Your task to perform on an android device: empty trash in the gmail app Image 0: 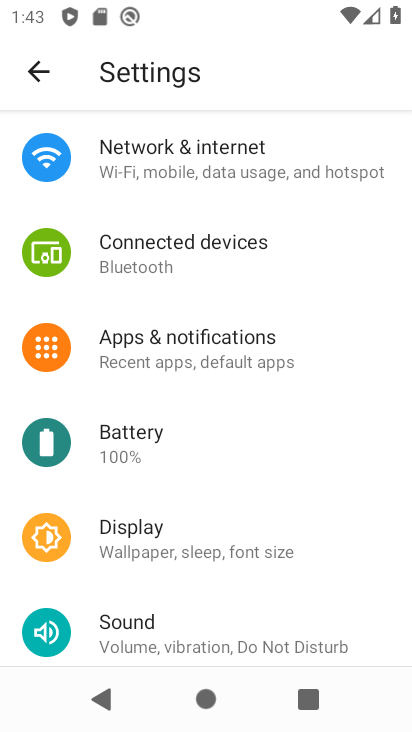
Step 0: press back button
Your task to perform on an android device: empty trash in the gmail app Image 1: 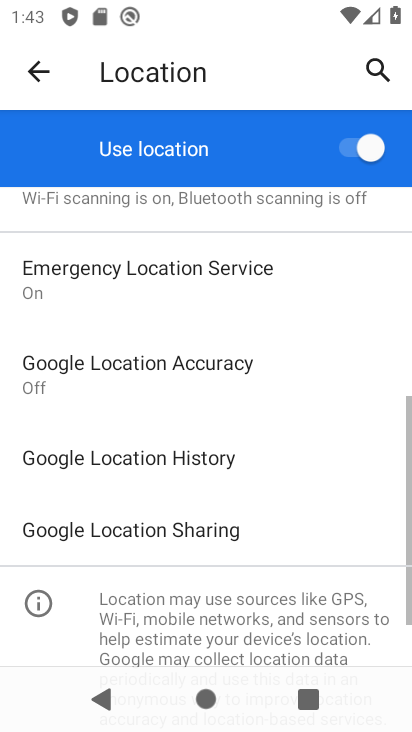
Step 1: press back button
Your task to perform on an android device: empty trash in the gmail app Image 2: 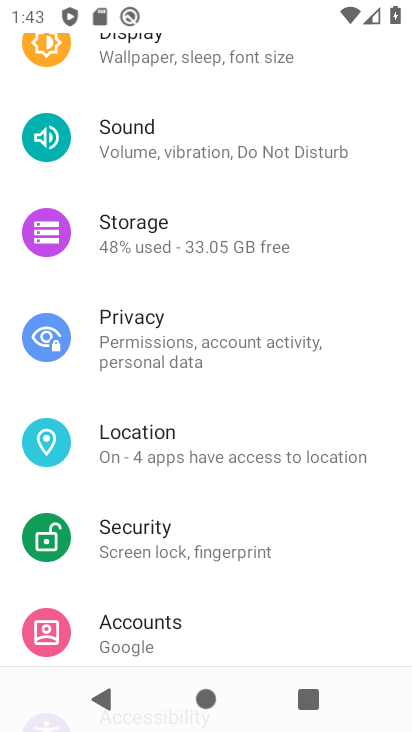
Step 2: press home button
Your task to perform on an android device: empty trash in the gmail app Image 3: 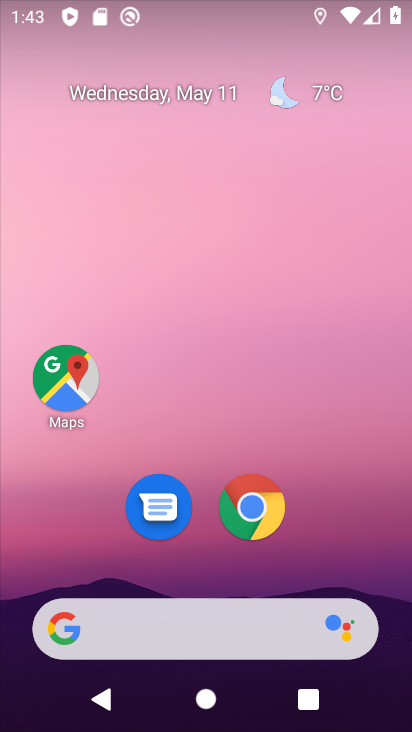
Step 3: drag from (323, 530) to (246, 28)
Your task to perform on an android device: empty trash in the gmail app Image 4: 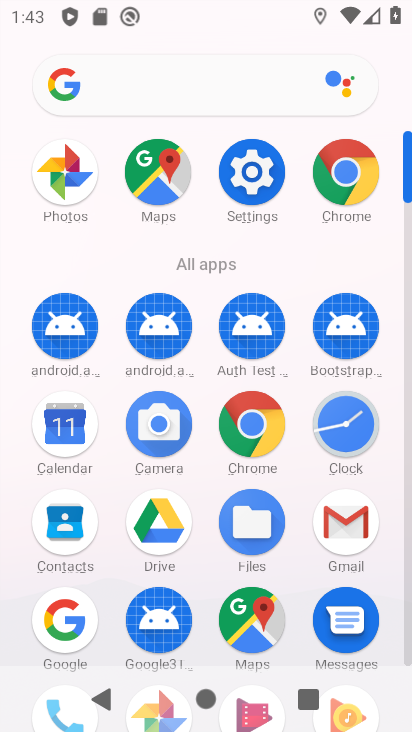
Step 4: click (337, 509)
Your task to perform on an android device: empty trash in the gmail app Image 5: 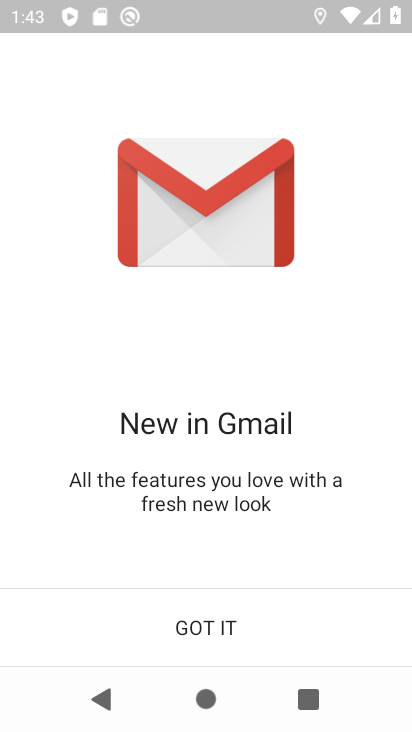
Step 5: click (195, 623)
Your task to perform on an android device: empty trash in the gmail app Image 6: 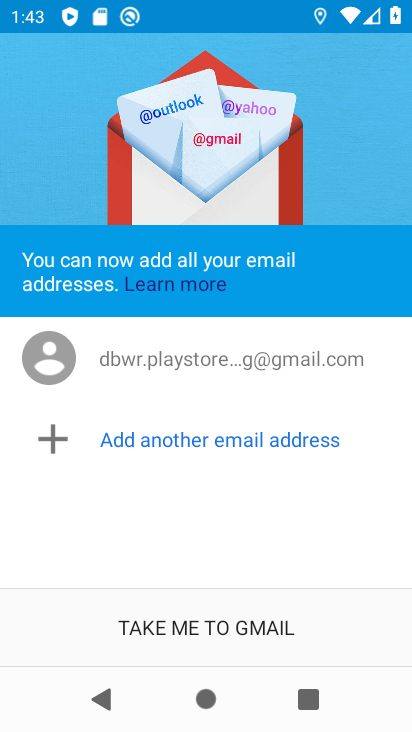
Step 6: click (197, 616)
Your task to perform on an android device: empty trash in the gmail app Image 7: 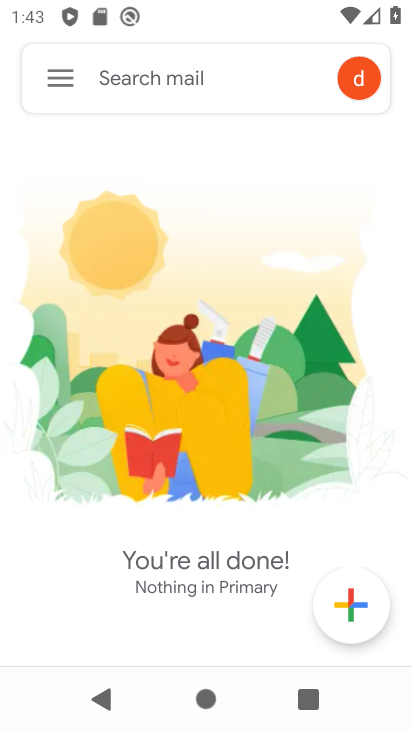
Step 7: click (60, 84)
Your task to perform on an android device: empty trash in the gmail app Image 8: 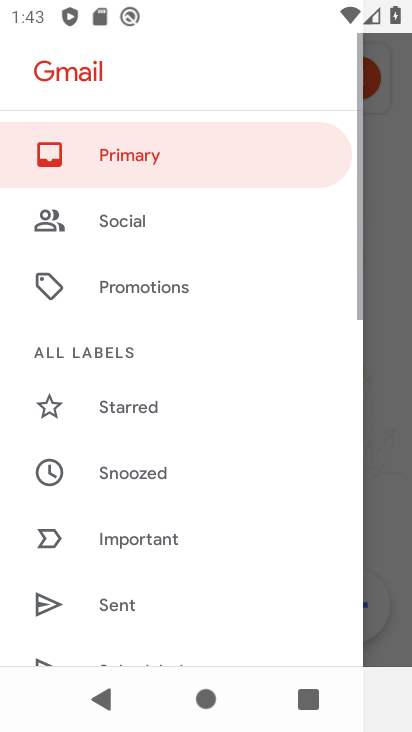
Step 8: drag from (193, 571) to (197, 138)
Your task to perform on an android device: empty trash in the gmail app Image 9: 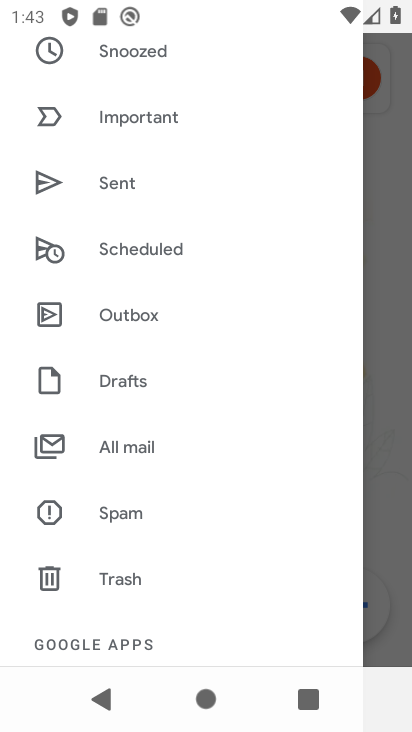
Step 9: drag from (175, 492) to (191, 245)
Your task to perform on an android device: empty trash in the gmail app Image 10: 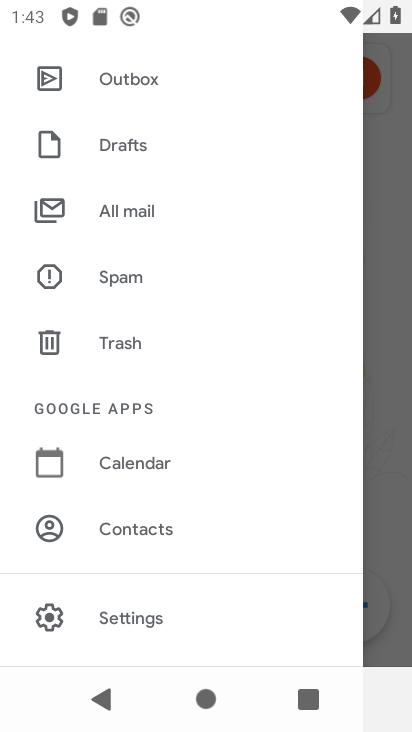
Step 10: click (104, 332)
Your task to perform on an android device: empty trash in the gmail app Image 11: 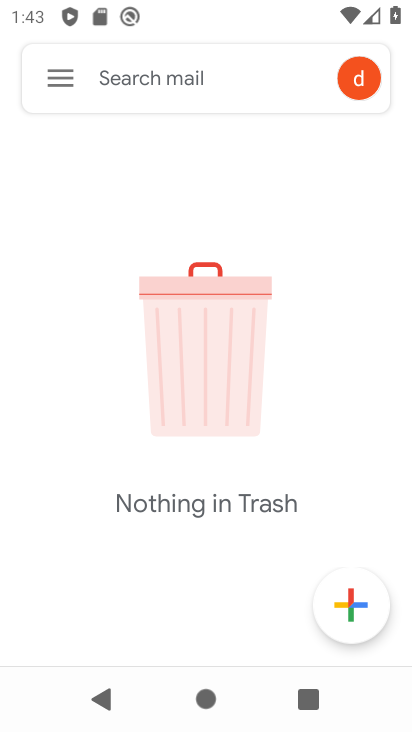
Step 11: task complete